Your task to perform on an android device: toggle notifications settings in the gmail app Image 0: 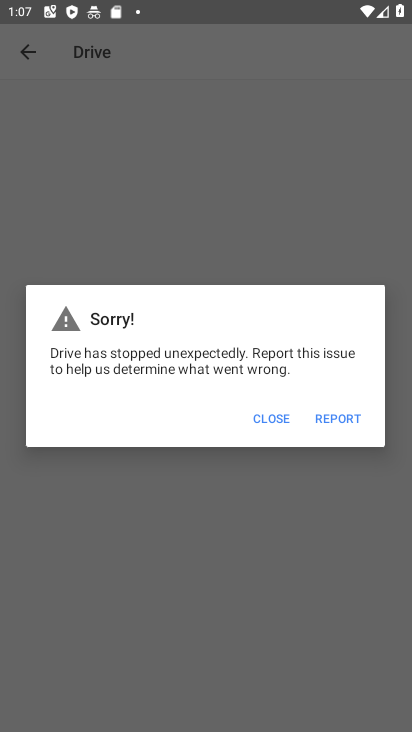
Step 0: press home button
Your task to perform on an android device: toggle notifications settings in the gmail app Image 1: 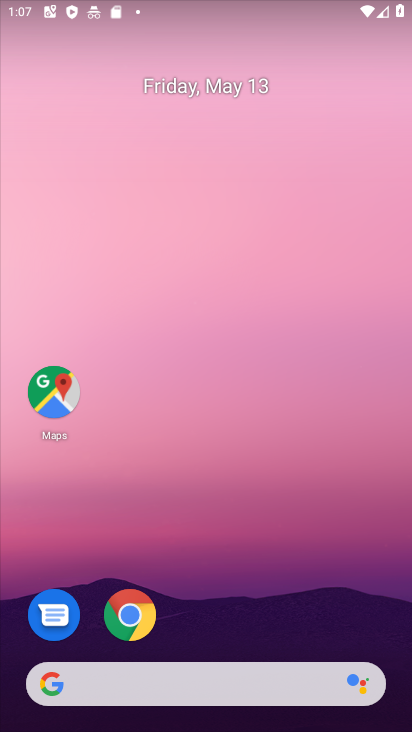
Step 1: drag from (206, 603) to (239, 179)
Your task to perform on an android device: toggle notifications settings in the gmail app Image 2: 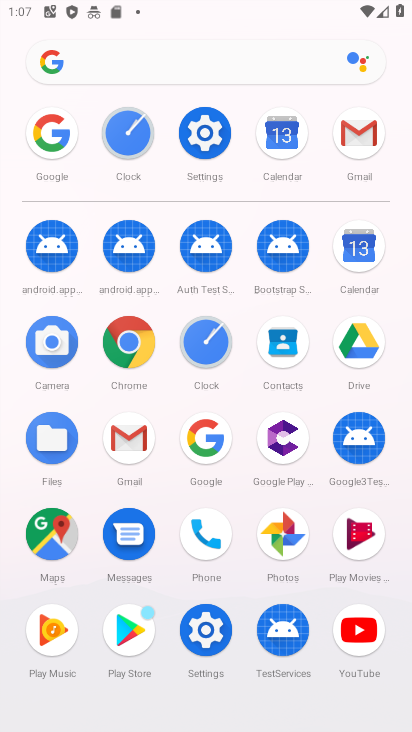
Step 2: click (352, 137)
Your task to perform on an android device: toggle notifications settings in the gmail app Image 3: 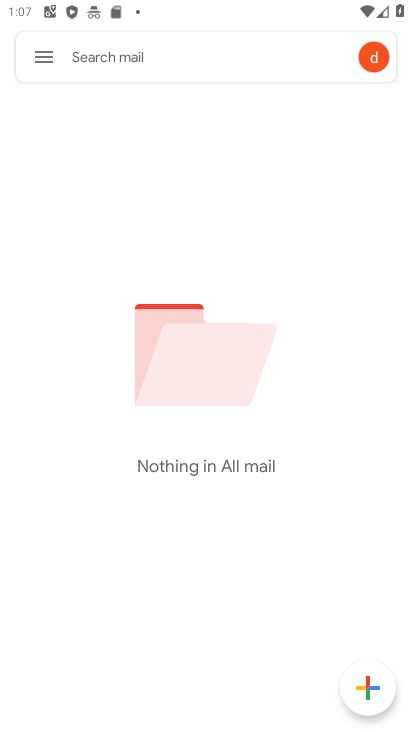
Step 3: click (50, 54)
Your task to perform on an android device: toggle notifications settings in the gmail app Image 4: 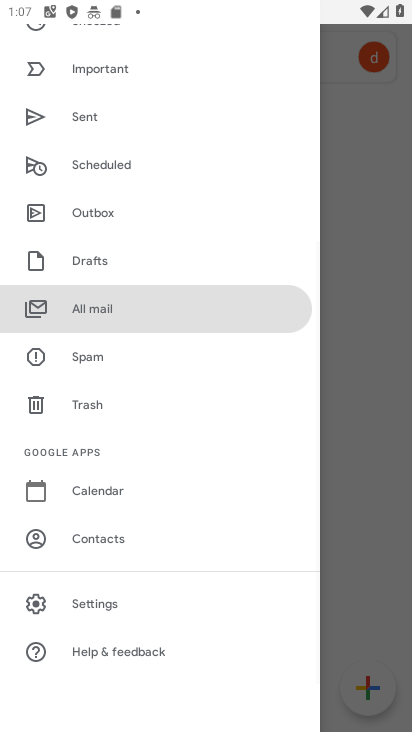
Step 4: click (118, 594)
Your task to perform on an android device: toggle notifications settings in the gmail app Image 5: 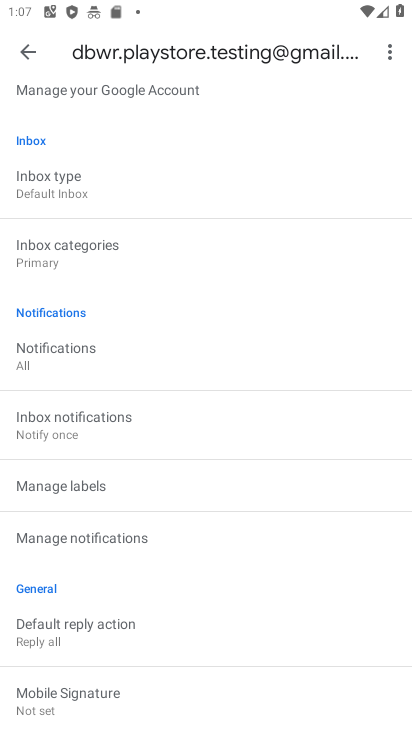
Step 5: click (118, 531)
Your task to perform on an android device: toggle notifications settings in the gmail app Image 6: 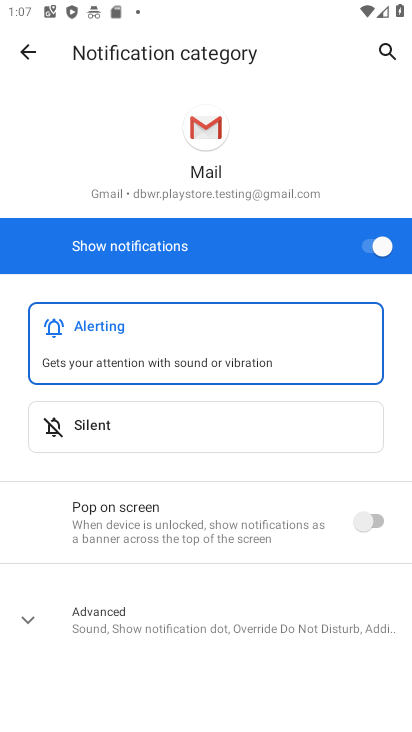
Step 6: task complete